Your task to perform on an android device: Open Google Maps and go to "Timeline" Image 0: 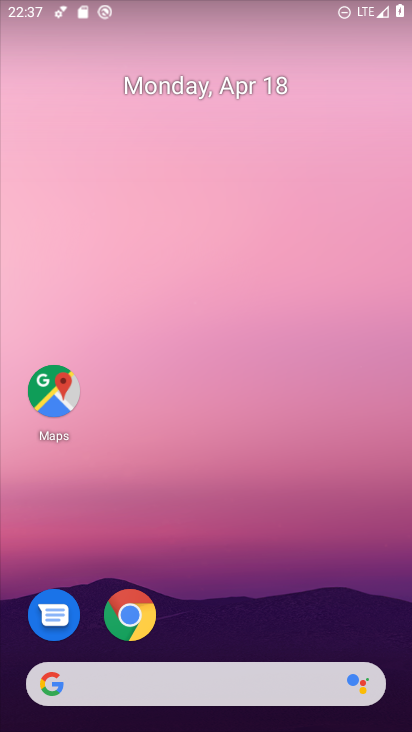
Step 0: click (50, 402)
Your task to perform on an android device: Open Google Maps and go to "Timeline" Image 1: 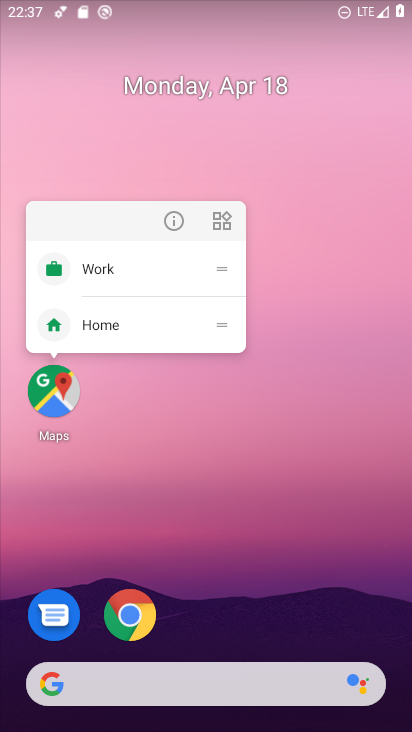
Step 1: click (58, 395)
Your task to perform on an android device: Open Google Maps and go to "Timeline" Image 2: 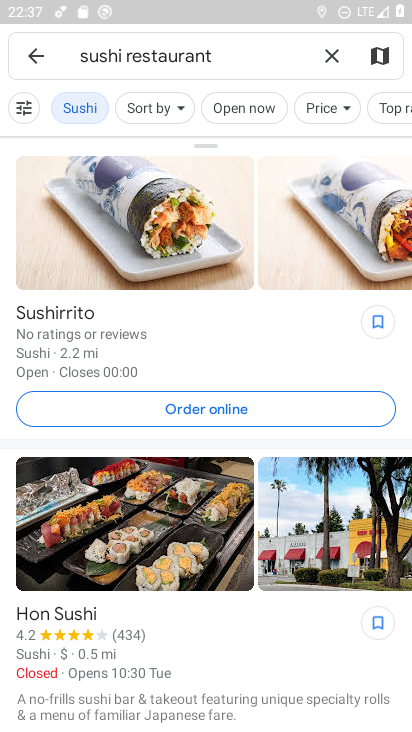
Step 2: click (326, 55)
Your task to perform on an android device: Open Google Maps and go to "Timeline" Image 3: 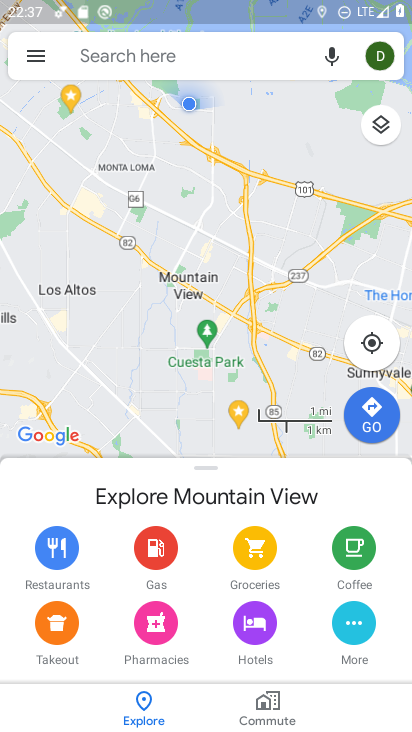
Step 3: click (32, 57)
Your task to perform on an android device: Open Google Maps and go to "Timeline" Image 4: 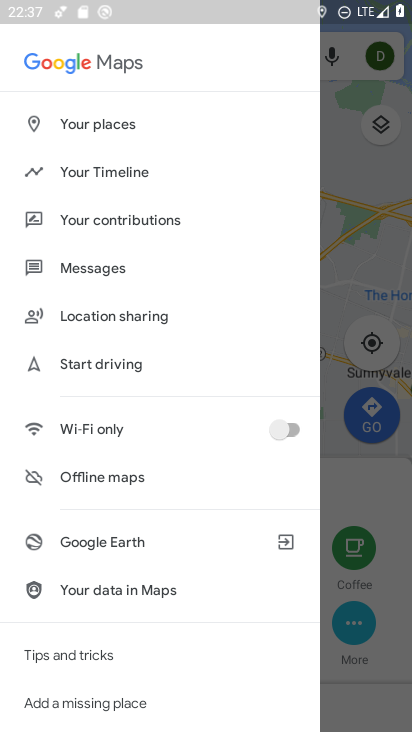
Step 4: click (74, 168)
Your task to perform on an android device: Open Google Maps and go to "Timeline" Image 5: 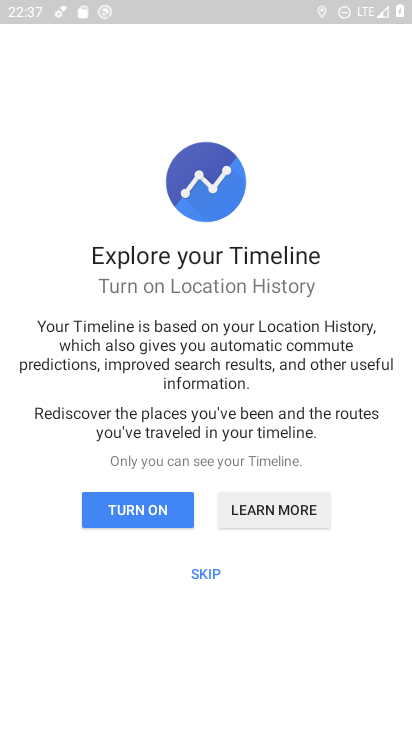
Step 5: click (196, 580)
Your task to perform on an android device: Open Google Maps and go to "Timeline" Image 6: 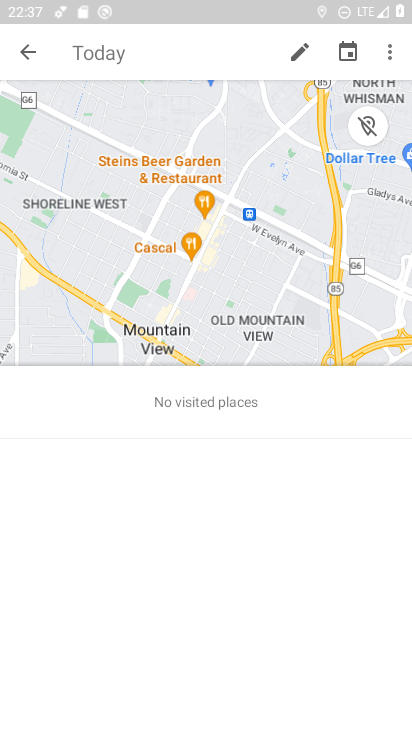
Step 6: task complete